Your task to perform on an android device: Open wifi settings Image 0: 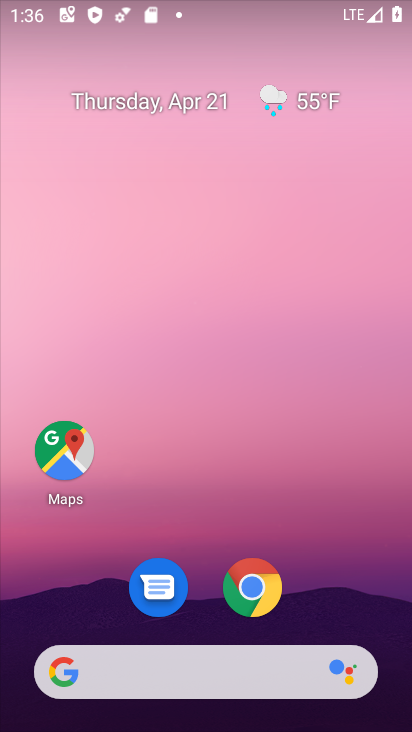
Step 0: drag from (374, 570) to (329, 97)
Your task to perform on an android device: Open wifi settings Image 1: 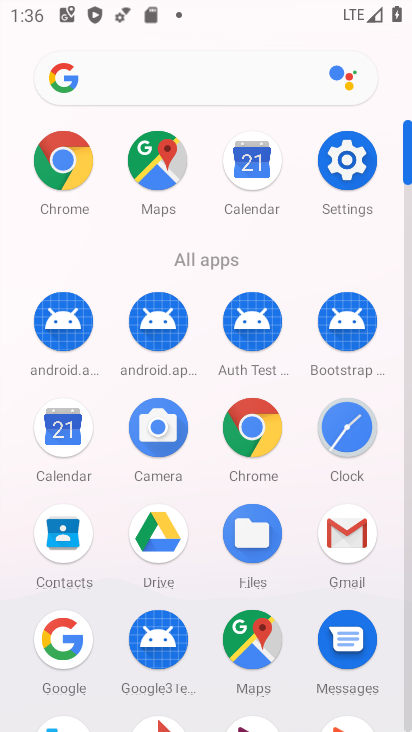
Step 1: click (406, 675)
Your task to perform on an android device: Open wifi settings Image 2: 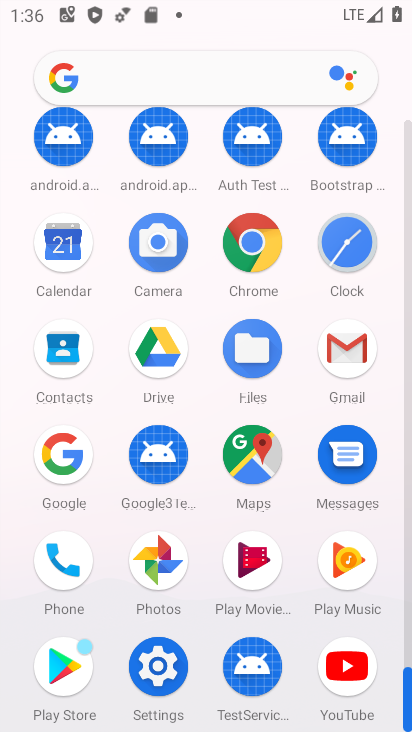
Step 2: click (152, 661)
Your task to perform on an android device: Open wifi settings Image 3: 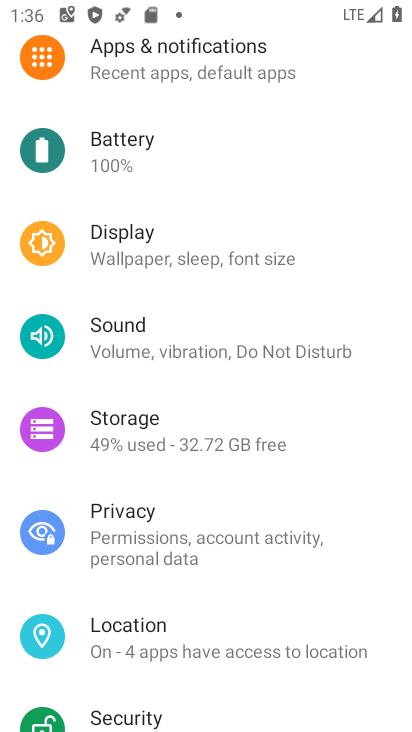
Step 3: drag from (229, 157) to (234, 423)
Your task to perform on an android device: Open wifi settings Image 4: 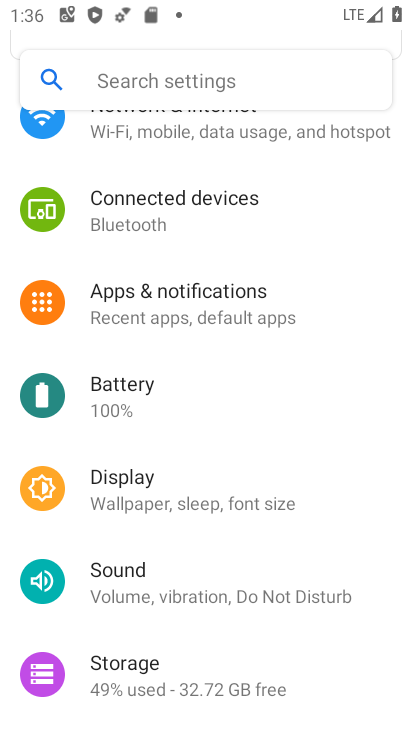
Step 4: drag from (258, 283) to (275, 508)
Your task to perform on an android device: Open wifi settings Image 5: 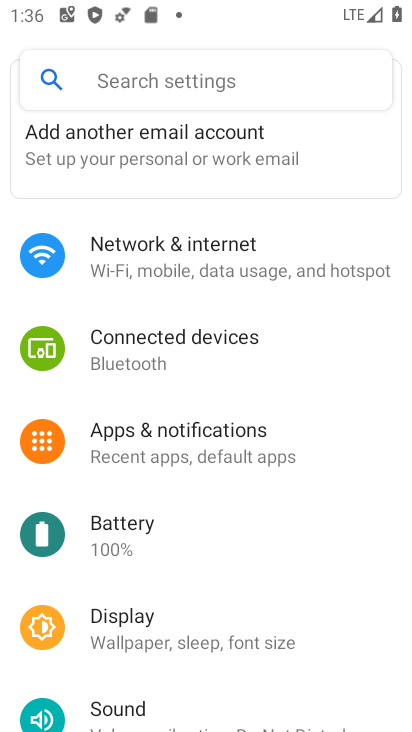
Step 5: click (135, 242)
Your task to perform on an android device: Open wifi settings Image 6: 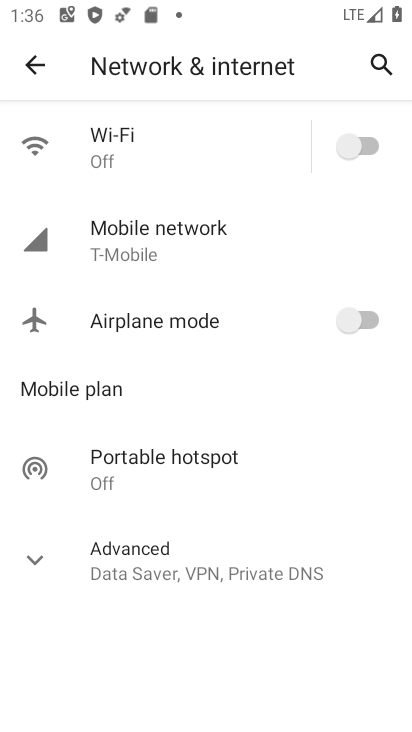
Step 6: click (94, 143)
Your task to perform on an android device: Open wifi settings Image 7: 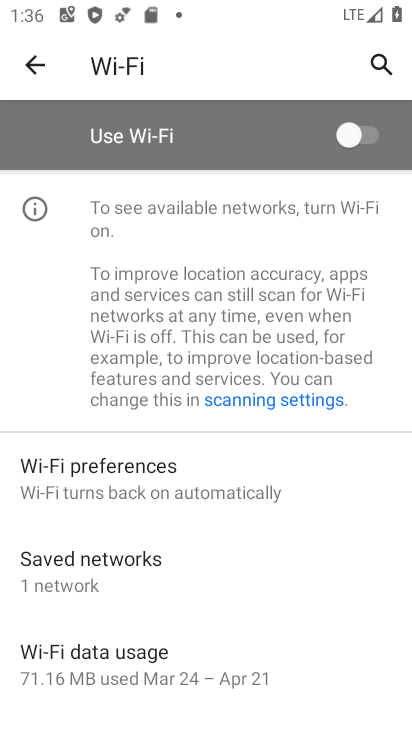
Step 7: task complete